Your task to perform on an android device: toggle notification dots Image 0: 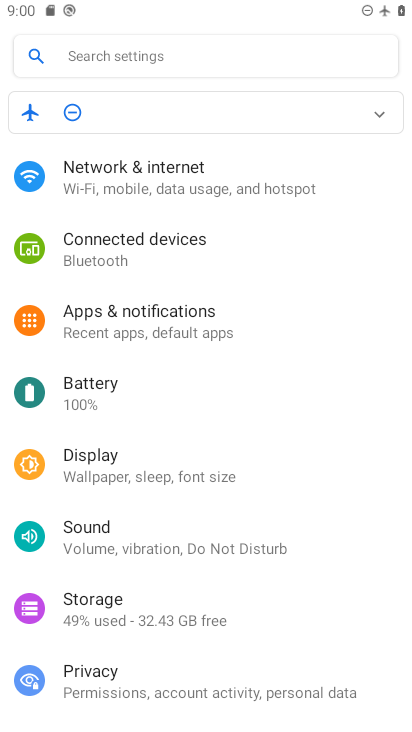
Step 0: click (179, 317)
Your task to perform on an android device: toggle notification dots Image 1: 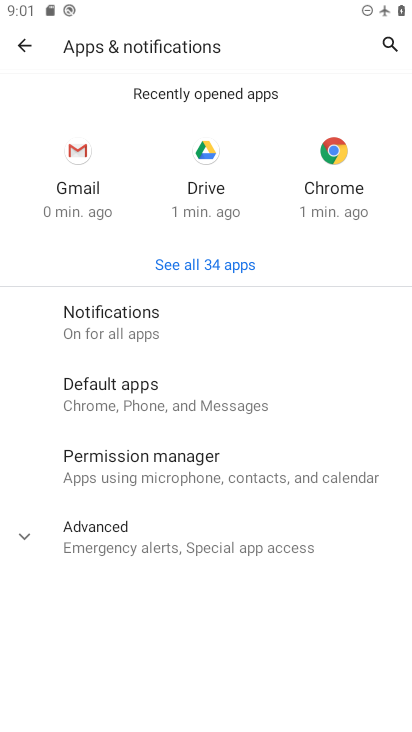
Step 1: click (125, 322)
Your task to perform on an android device: toggle notification dots Image 2: 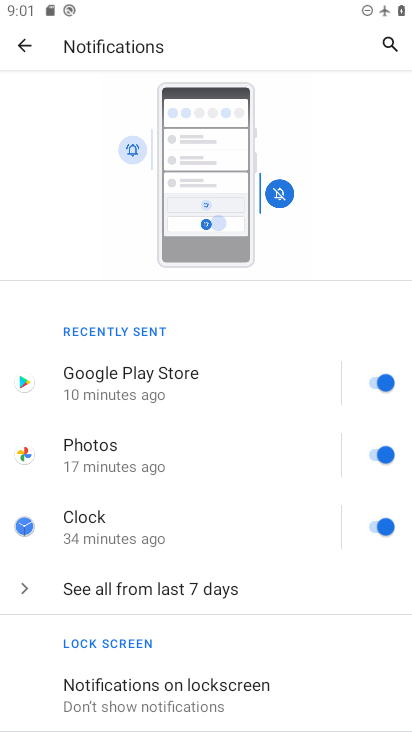
Step 2: drag from (209, 629) to (231, 135)
Your task to perform on an android device: toggle notification dots Image 3: 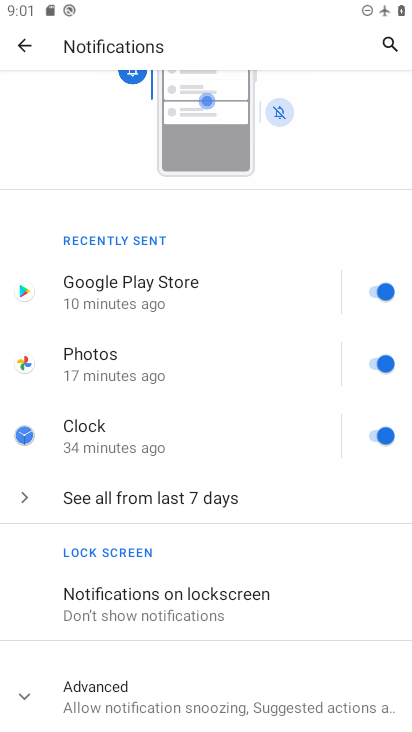
Step 3: click (118, 701)
Your task to perform on an android device: toggle notification dots Image 4: 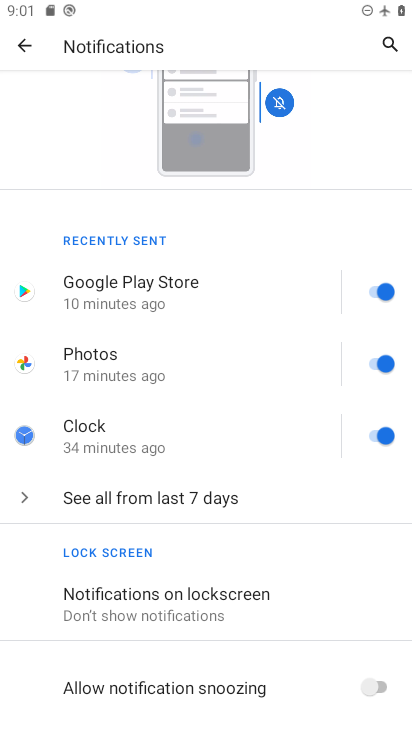
Step 4: drag from (161, 663) to (185, 522)
Your task to perform on an android device: toggle notification dots Image 5: 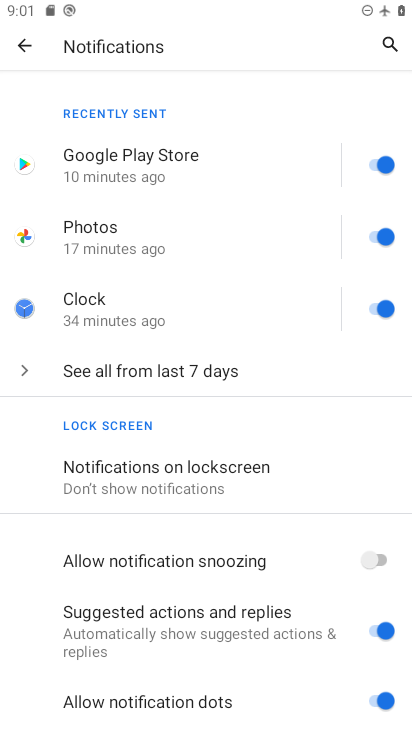
Step 5: drag from (229, 675) to (254, 420)
Your task to perform on an android device: toggle notification dots Image 6: 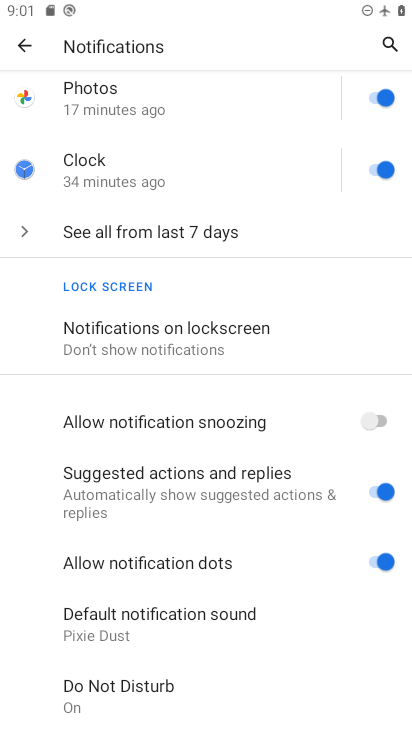
Step 6: click (374, 559)
Your task to perform on an android device: toggle notification dots Image 7: 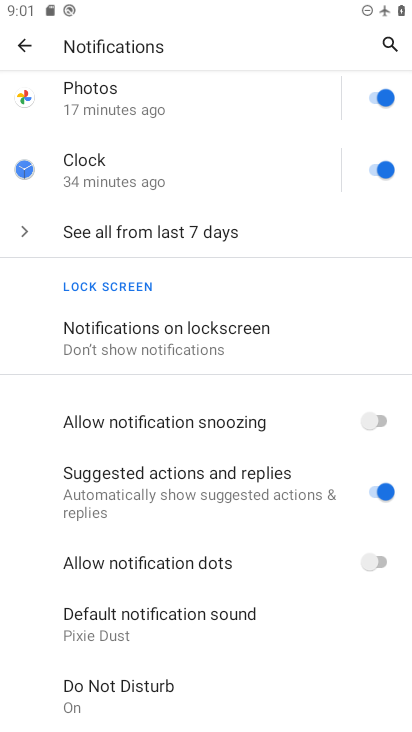
Step 7: task complete